Your task to perform on an android device: open app "PUBG MOBILE" (install if not already installed) and go to login screen Image 0: 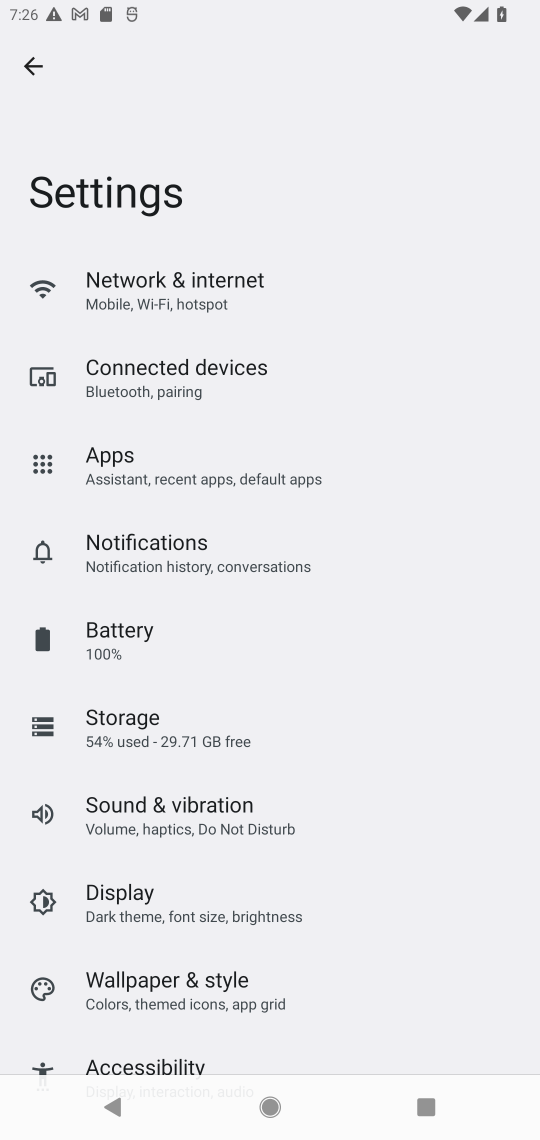
Step 0: press home button
Your task to perform on an android device: open app "PUBG MOBILE" (install if not already installed) and go to login screen Image 1: 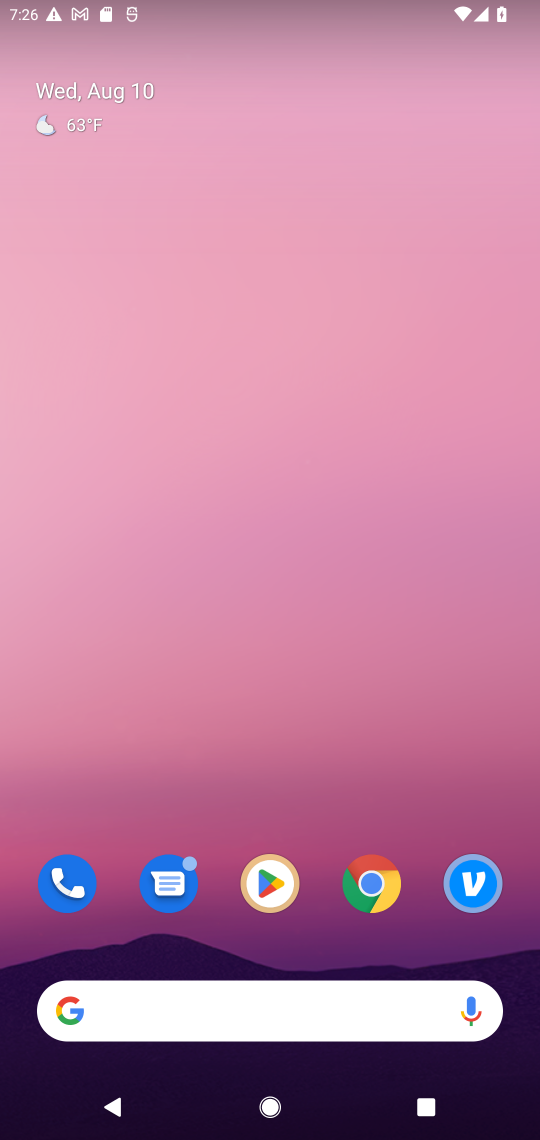
Step 1: click (256, 910)
Your task to perform on an android device: open app "PUBG MOBILE" (install if not already installed) and go to login screen Image 2: 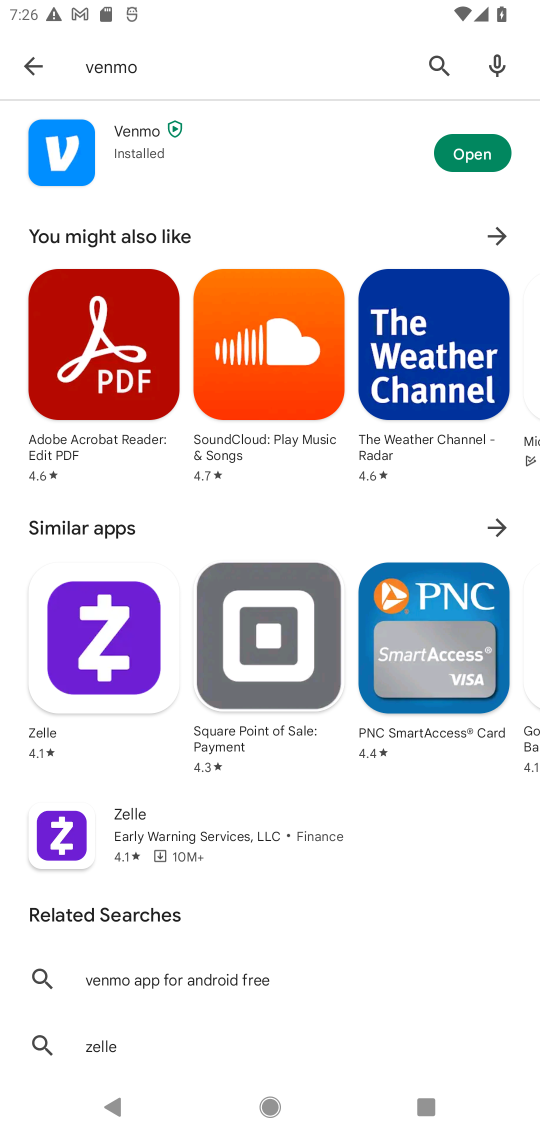
Step 2: click (432, 79)
Your task to perform on an android device: open app "PUBG MOBILE" (install if not already installed) and go to login screen Image 3: 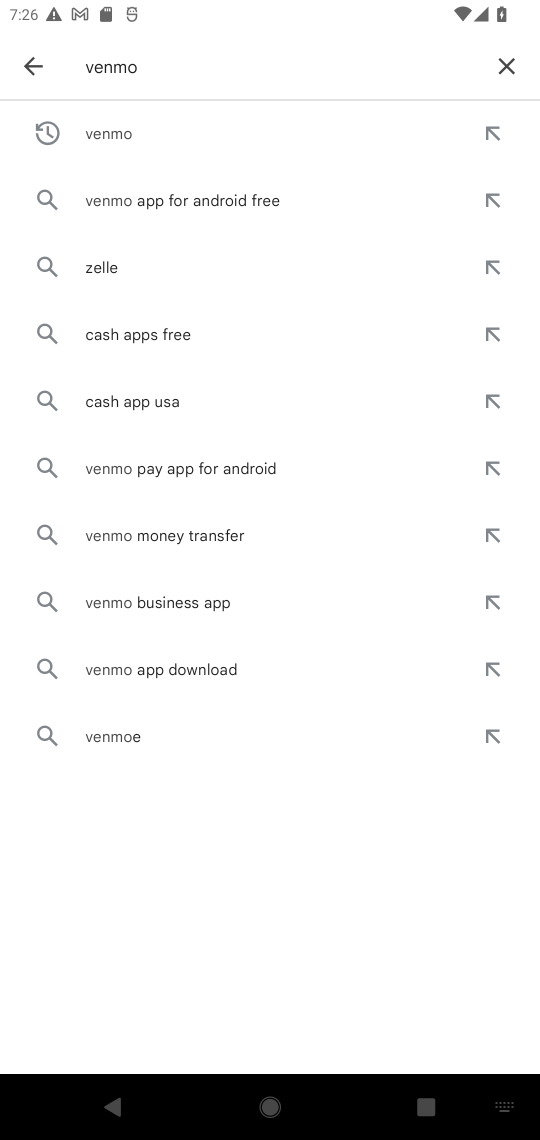
Step 3: click (493, 60)
Your task to perform on an android device: open app "PUBG MOBILE" (install if not already installed) and go to login screen Image 4: 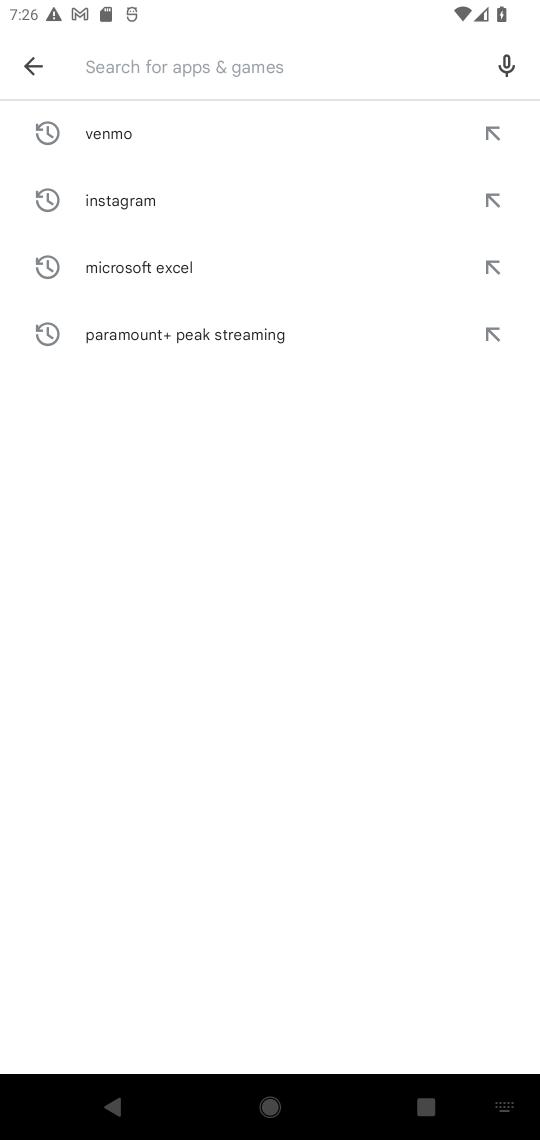
Step 4: type "PUBG MOBILE"
Your task to perform on an android device: open app "PUBG MOBILE" (install if not already installed) and go to login screen Image 5: 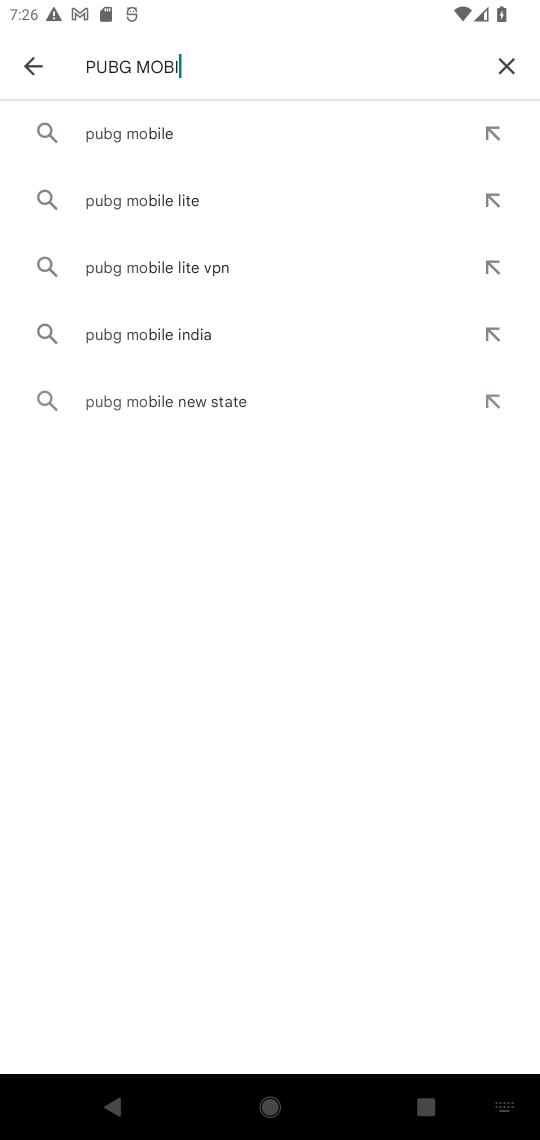
Step 5: type ""
Your task to perform on an android device: open app "PUBG MOBILE" (install if not already installed) and go to login screen Image 6: 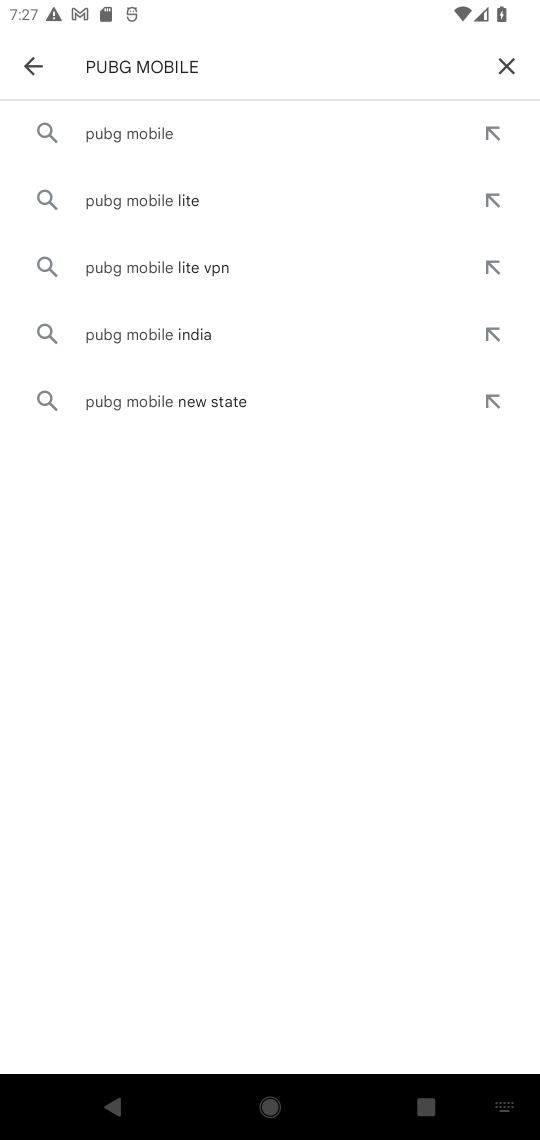
Step 6: click (125, 134)
Your task to perform on an android device: open app "PUBG MOBILE" (install if not already installed) and go to login screen Image 7: 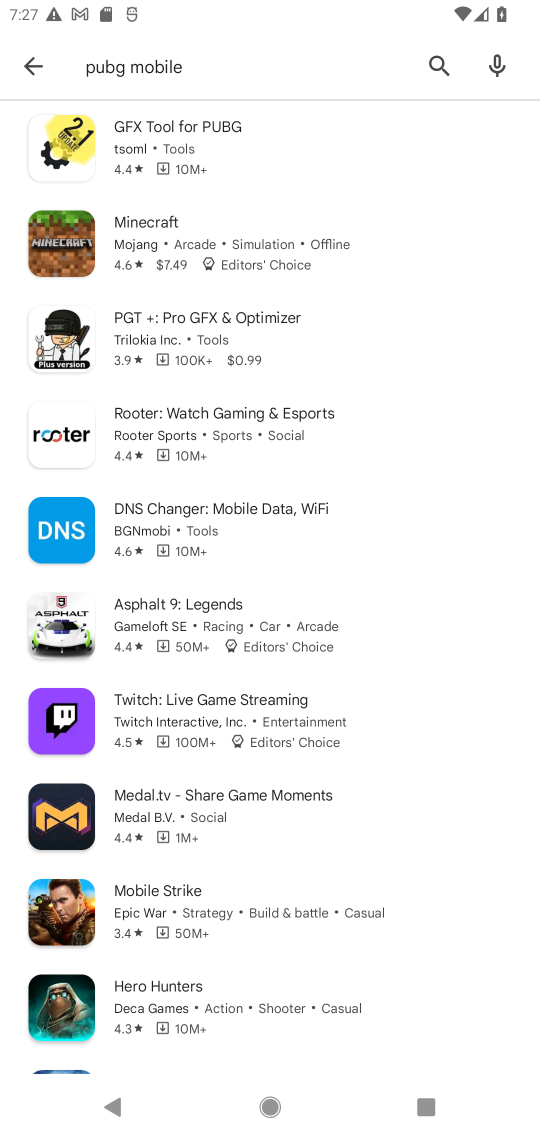
Step 7: task complete